Your task to perform on an android device: Go to battery settings Image 0: 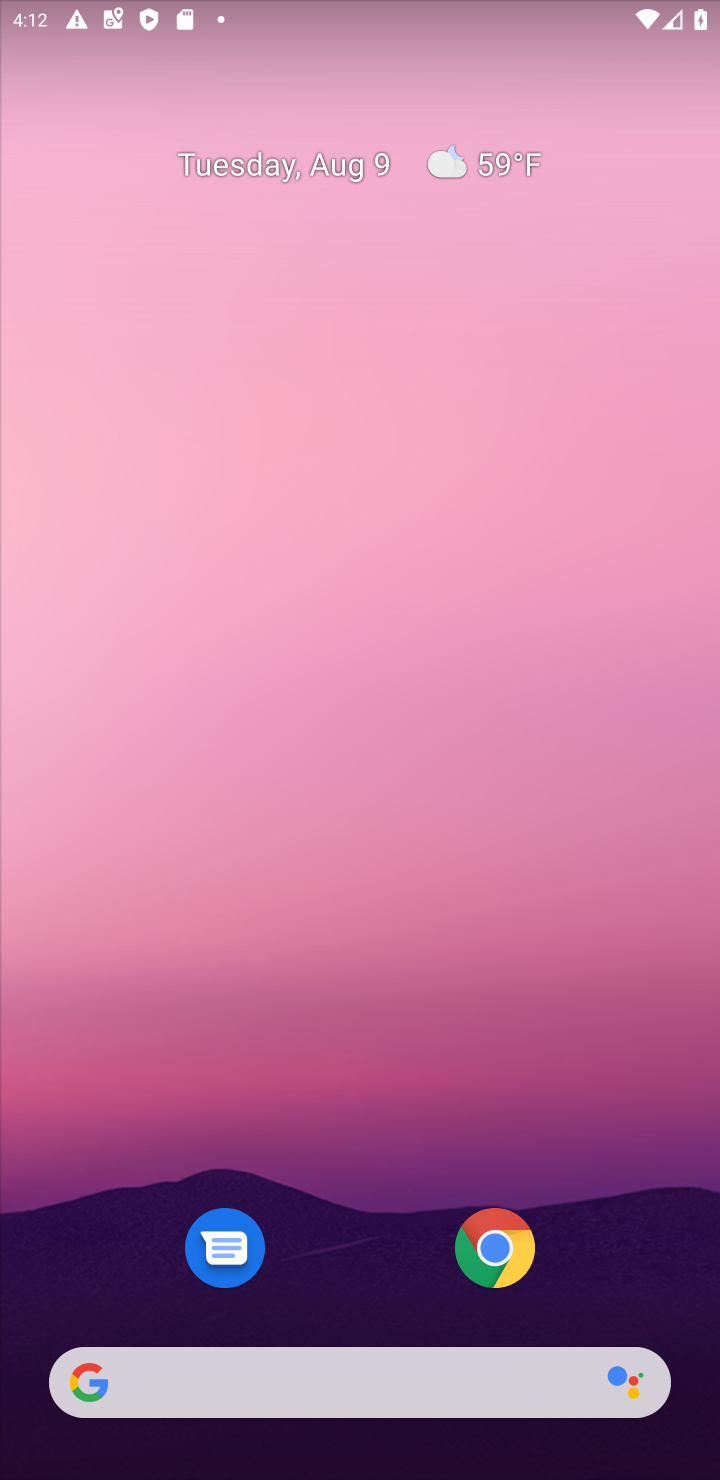
Step 0: drag from (329, 1145) to (189, 502)
Your task to perform on an android device: Go to battery settings Image 1: 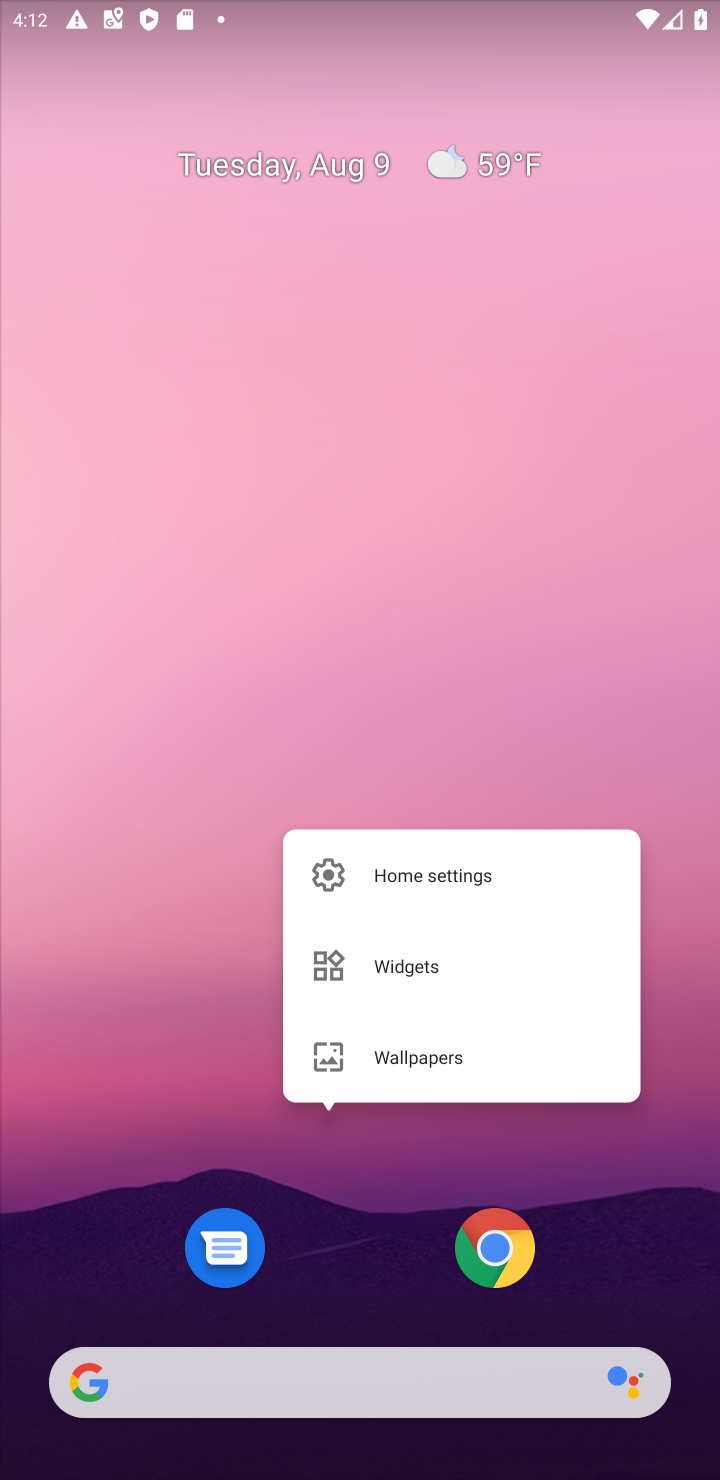
Step 1: click (331, 610)
Your task to perform on an android device: Go to battery settings Image 2: 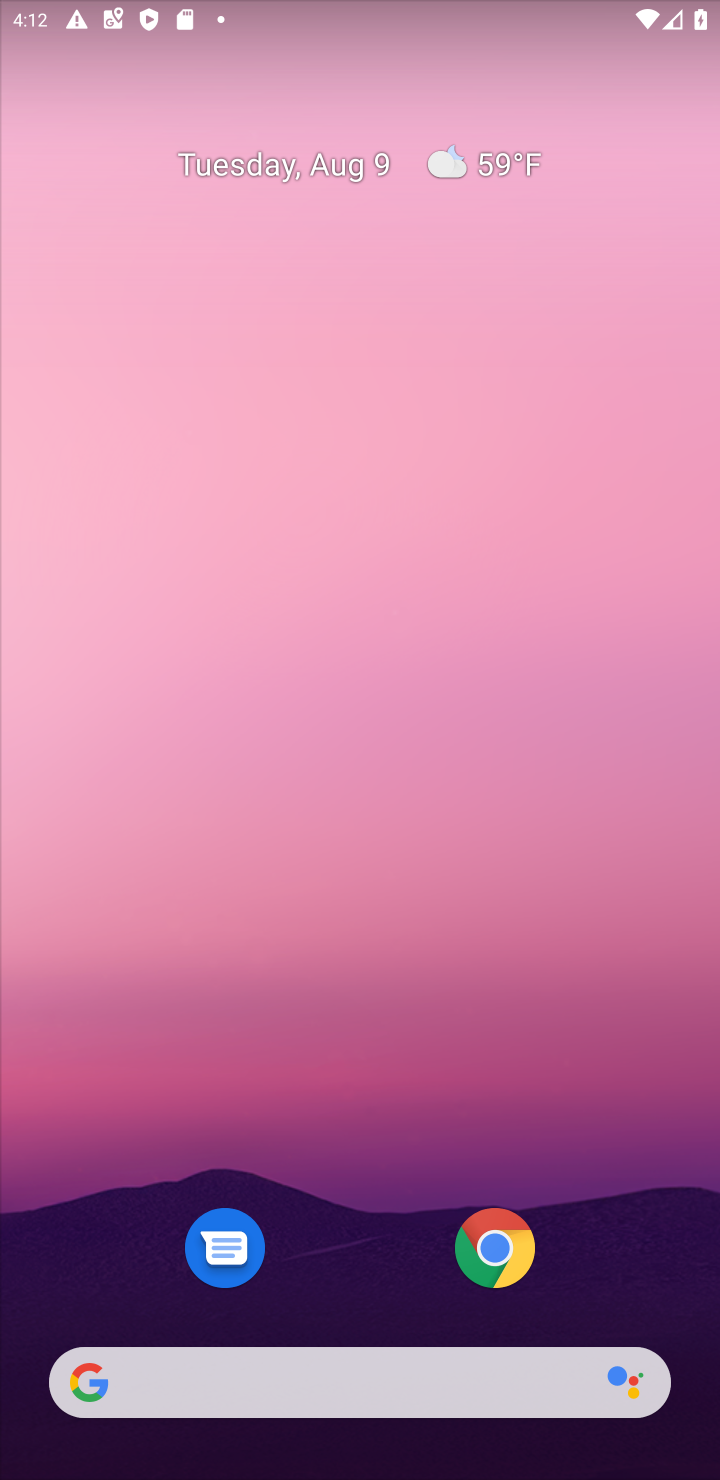
Step 2: drag from (398, 1278) to (188, 258)
Your task to perform on an android device: Go to battery settings Image 3: 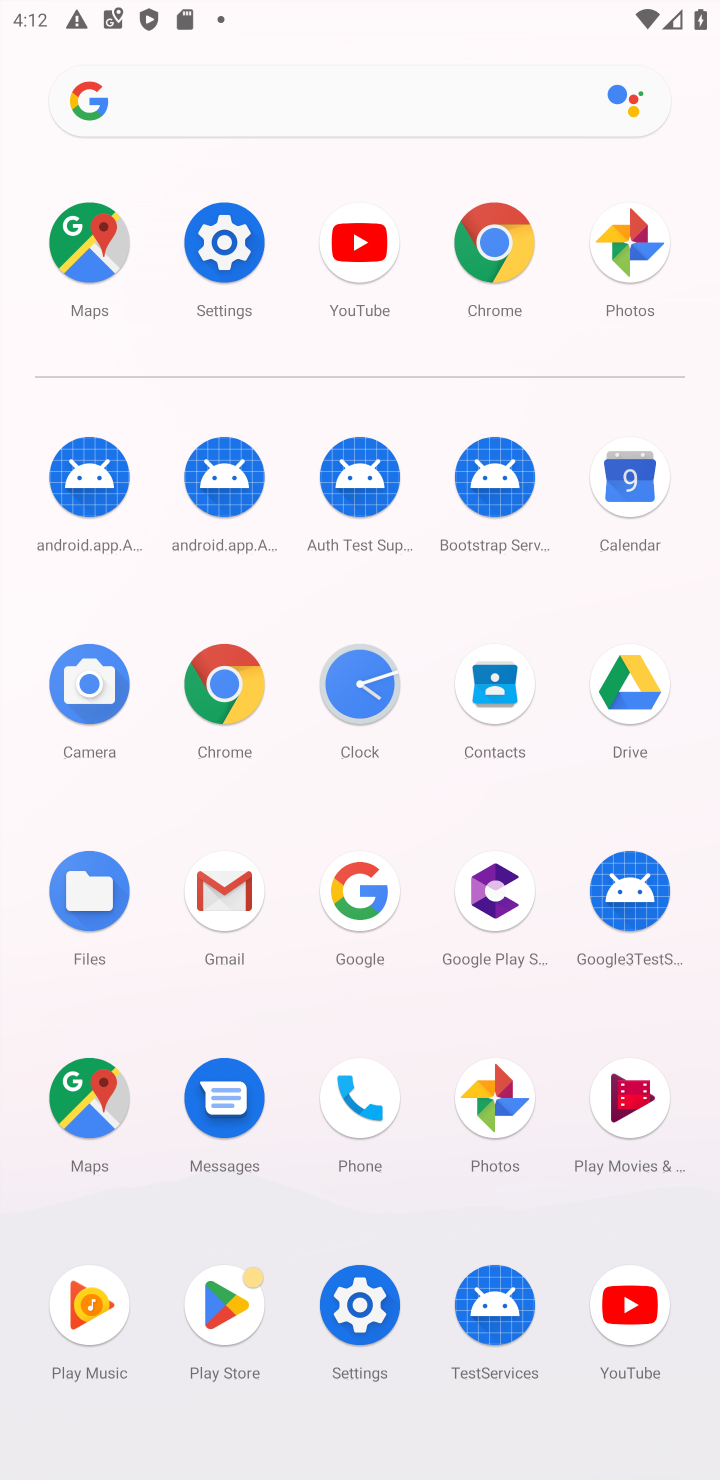
Step 3: click (378, 1299)
Your task to perform on an android device: Go to battery settings Image 4: 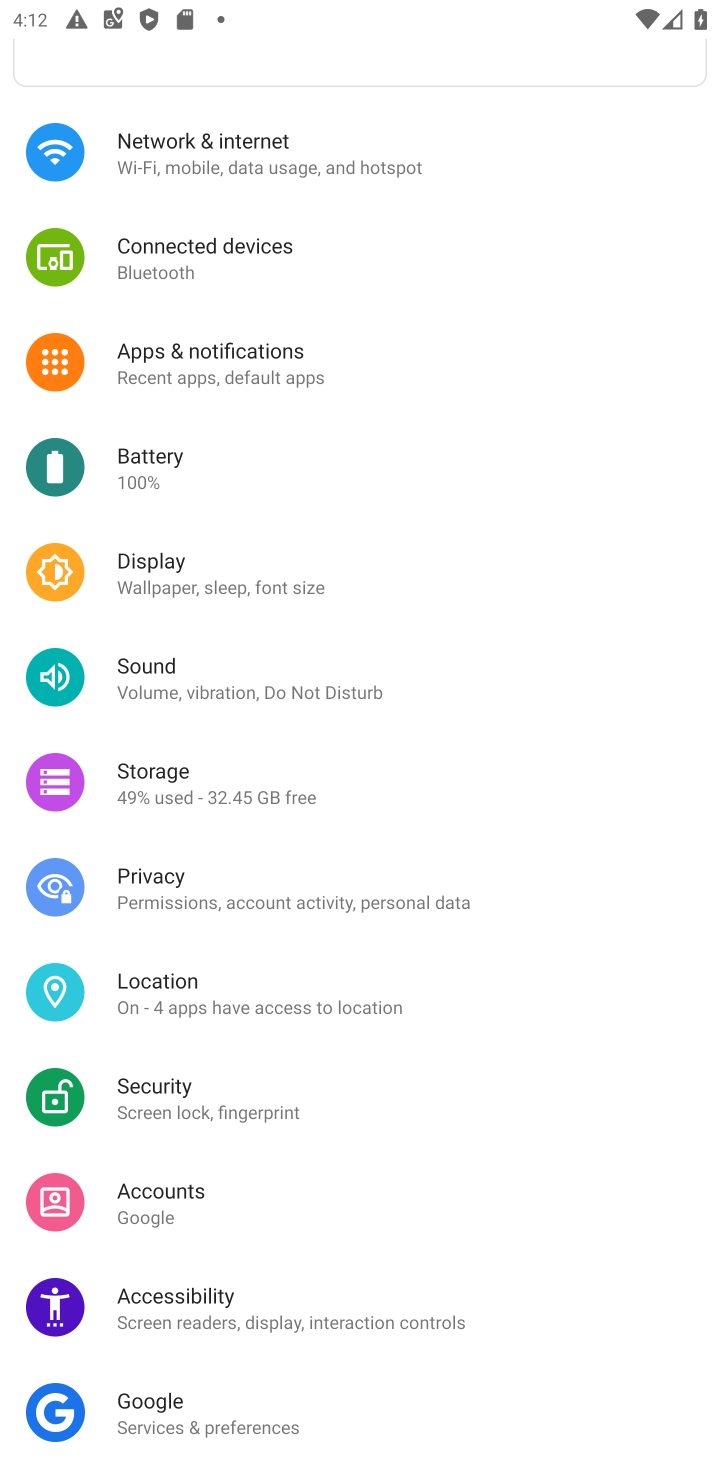
Step 4: drag from (448, 391) to (640, 1478)
Your task to perform on an android device: Go to battery settings Image 5: 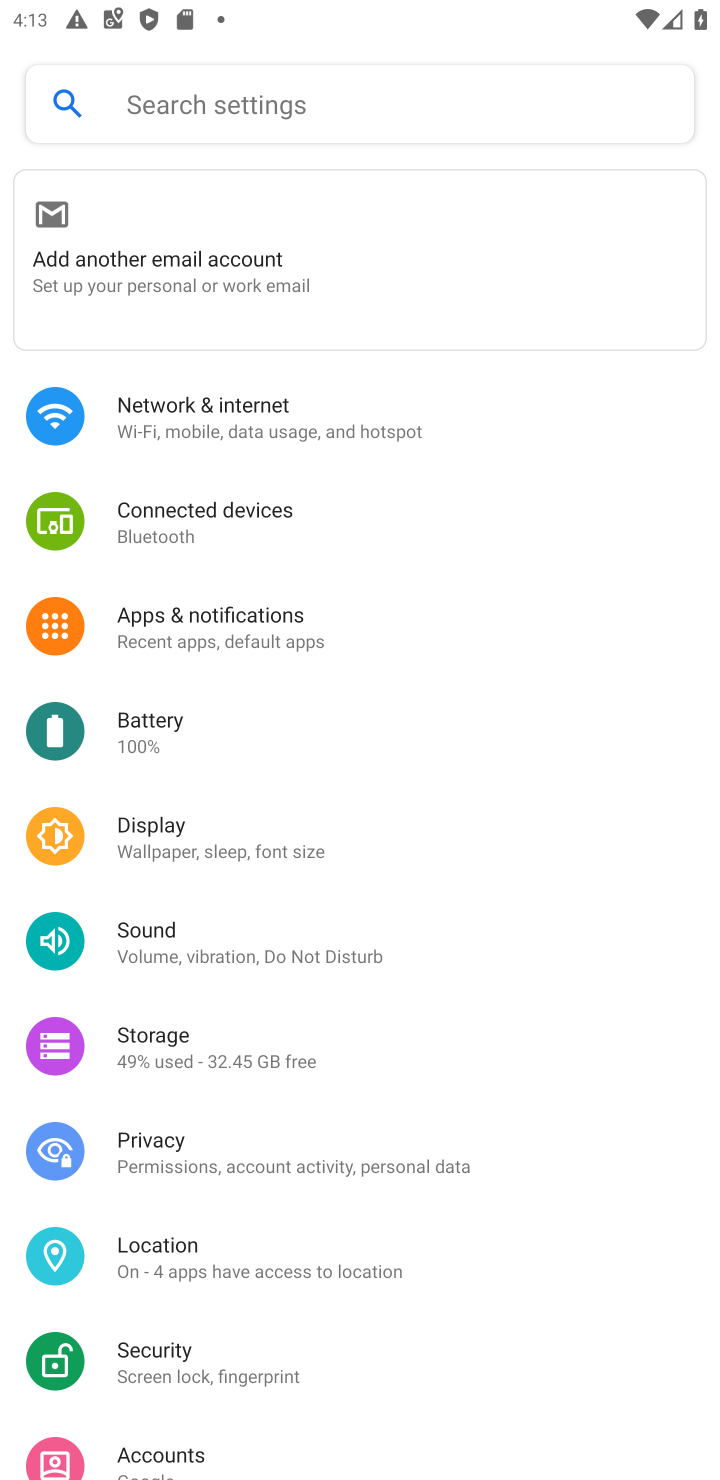
Step 5: click (169, 713)
Your task to perform on an android device: Go to battery settings Image 6: 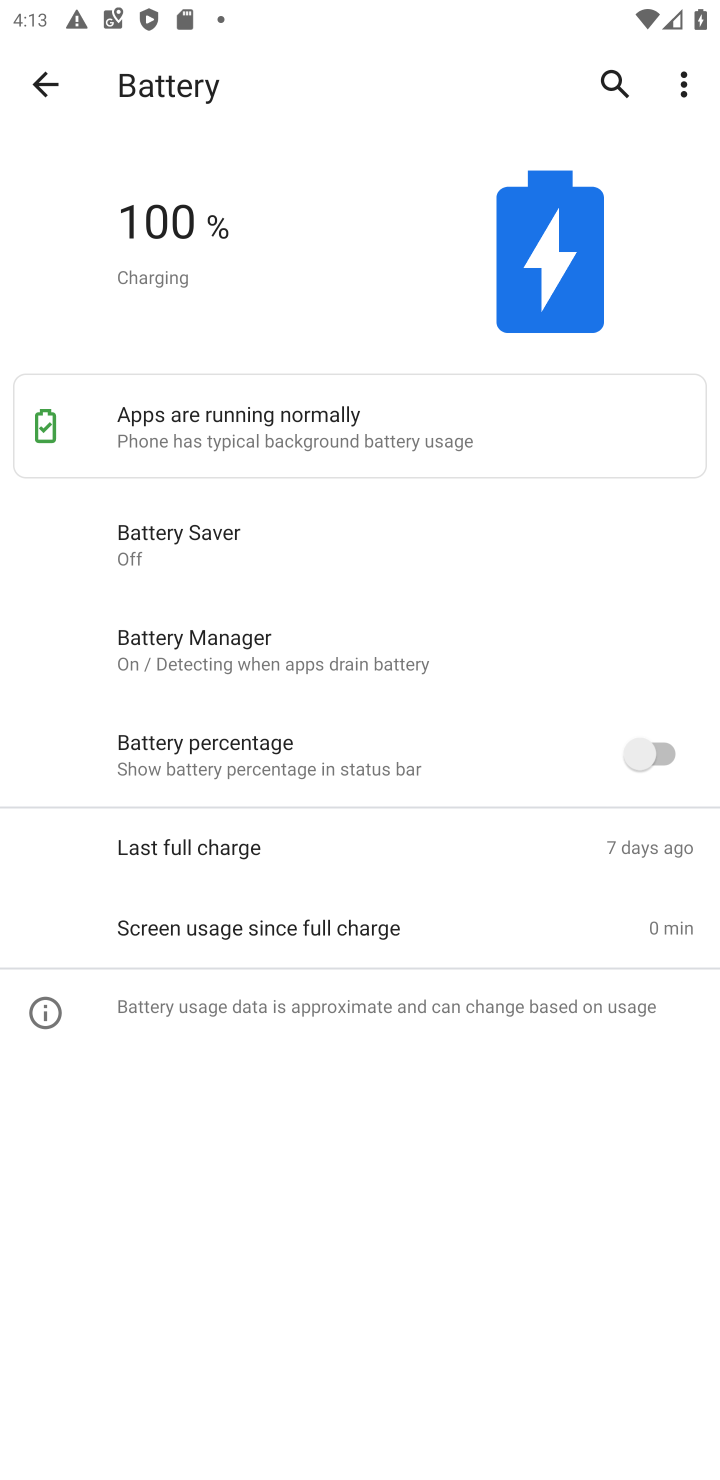
Step 6: task complete